Your task to perform on an android device: turn on the 12-hour format for clock Image 0: 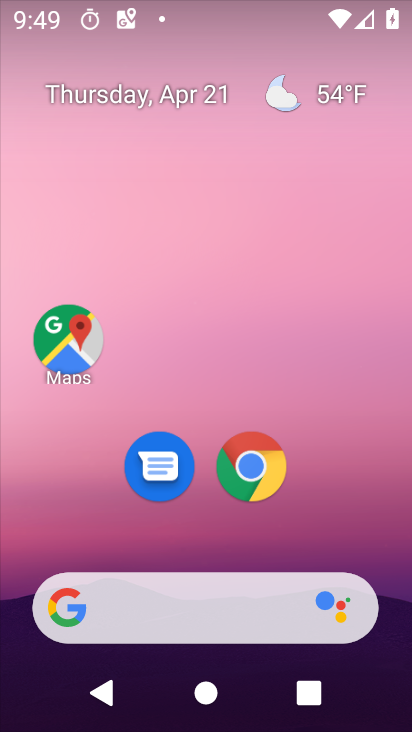
Step 0: drag from (363, 549) to (393, 184)
Your task to perform on an android device: turn on the 12-hour format for clock Image 1: 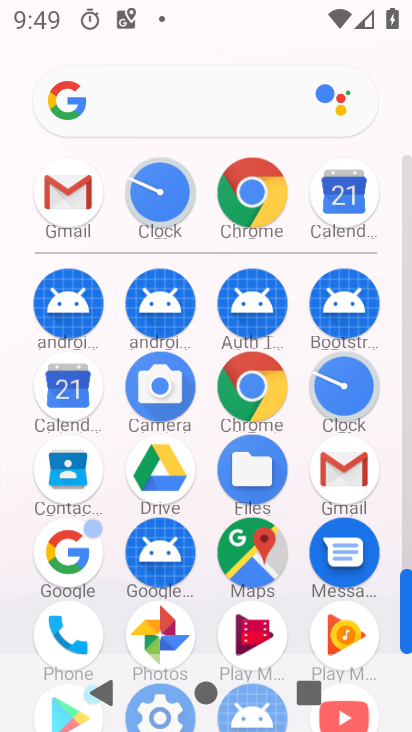
Step 1: click (353, 387)
Your task to perform on an android device: turn on the 12-hour format for clock Image 2: 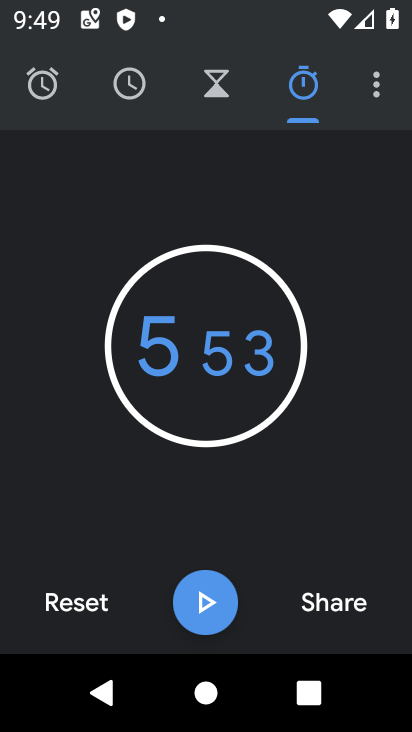
Step 2: click (377, 90)
Your task to perform on an android device: turn on the 12-hour format for clock Image 3: 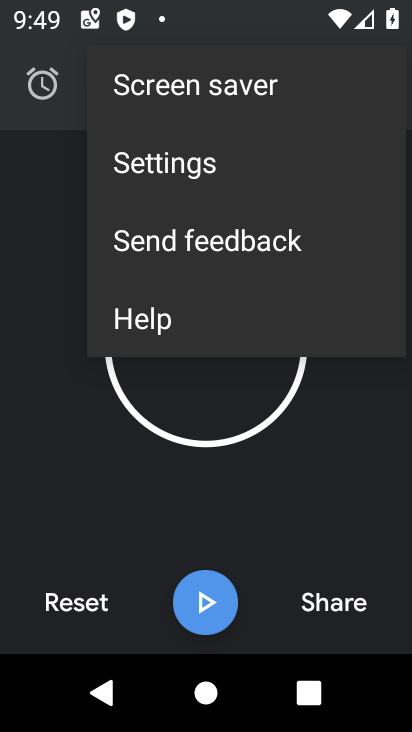
Step 3: click (177, 163)
Your task to perform on an android device: turn on the 12-hour format for clock Image 4: 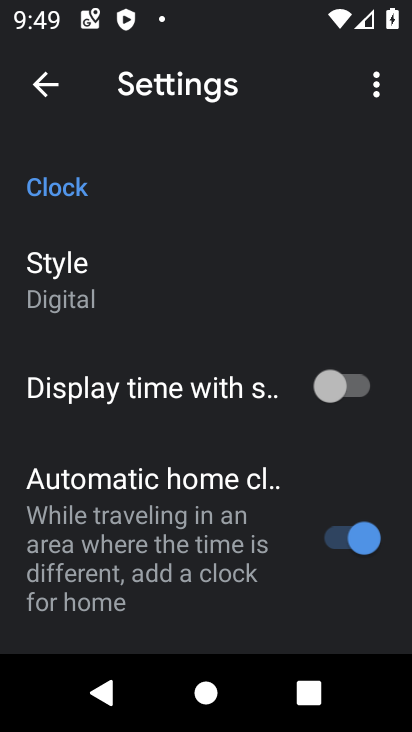
Step 4: drag from (171, 529) to (228, 253)
Your task to perform on an android device: turn on the 12-hour format for clock Image 5: 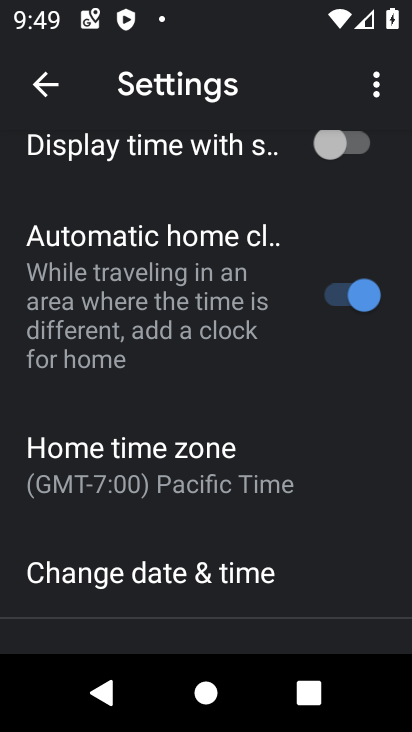
Step 5: click (240, 569)
Your task to perform on an android device: turn on the 12-hour format for clock Image 6: 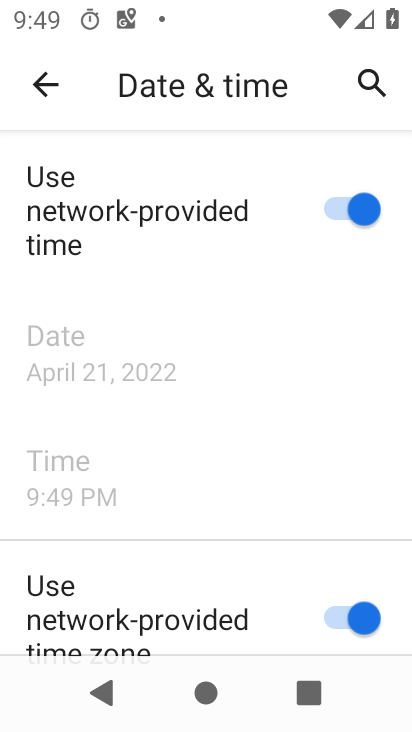
Step 6: task complete